Your task to perform on an android device: turn on airplane mode Image 0: 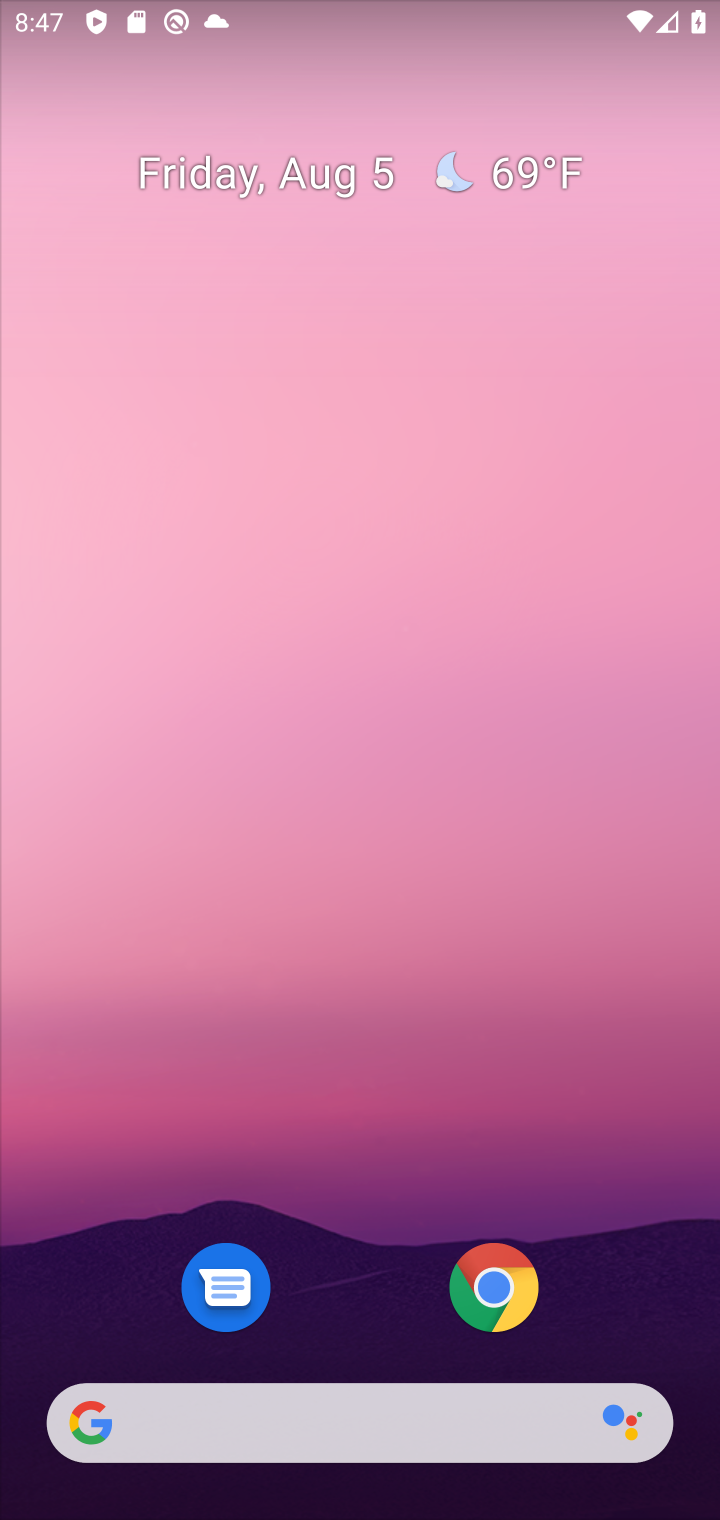
Step 0: drag from (364, 1310) to (334, 9)
Your task to perform on an android device: turn on airplane mode Image 1: 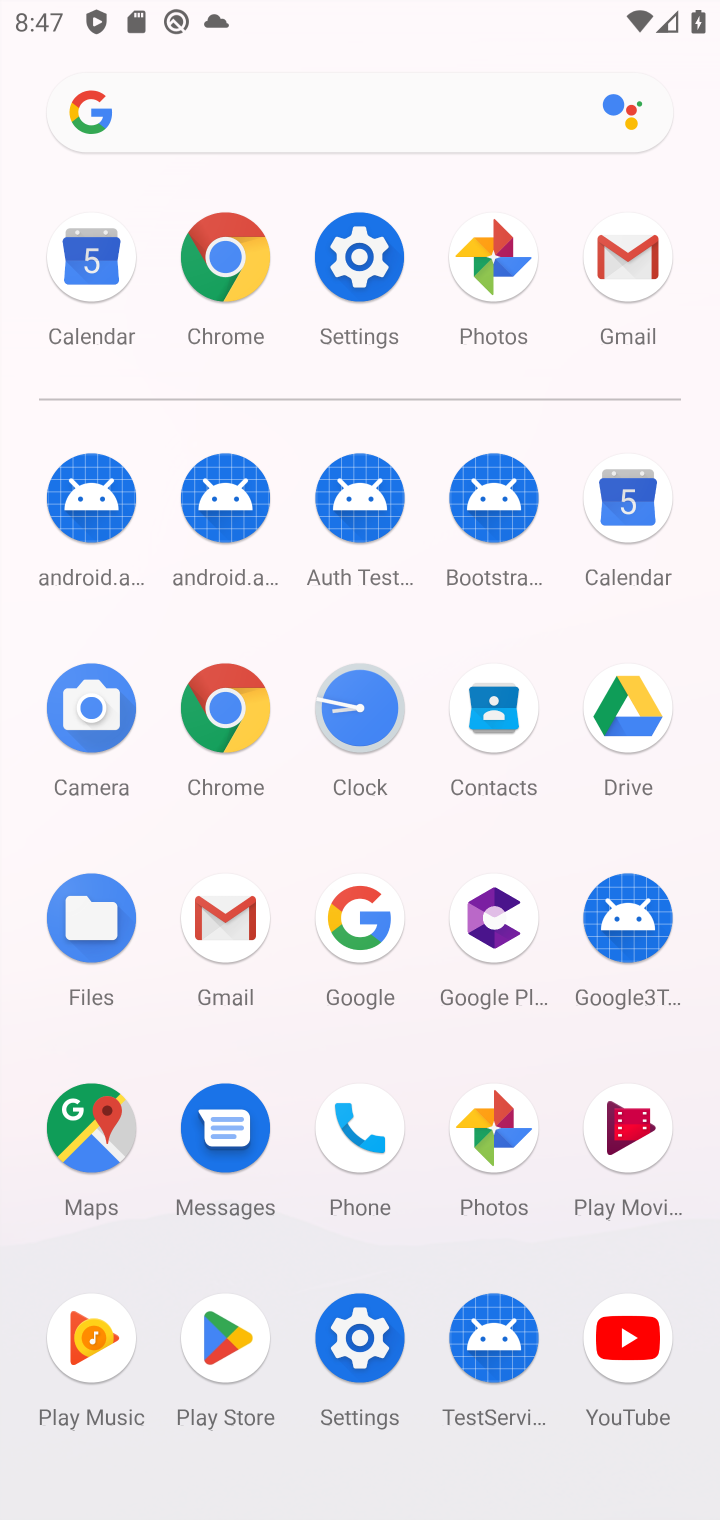
Step 1: click (355, 230)
Your task to perform on an android device: turn on airplane mode Image 2: 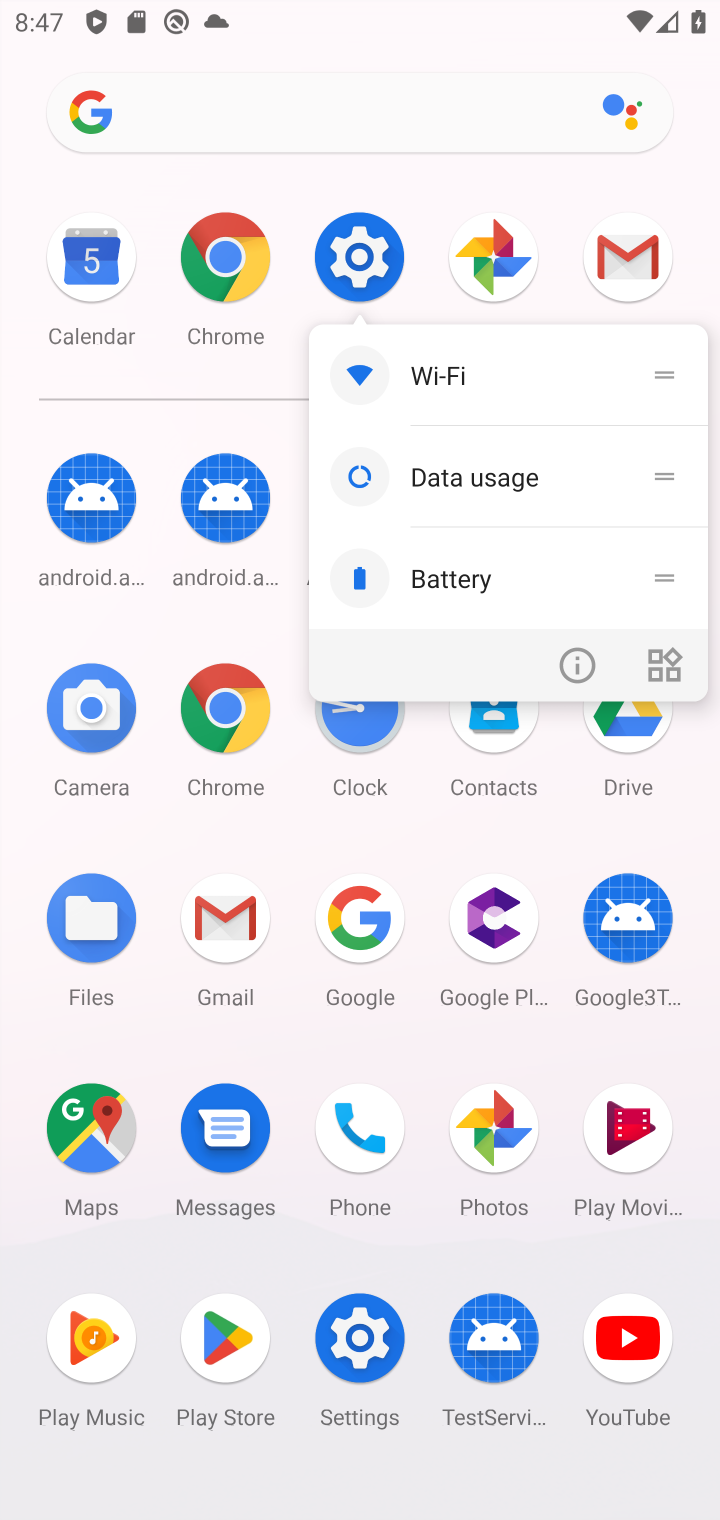
Step 2: click (356, 251)
Your task to perform on an android device: turn on airplane mode Image 3: 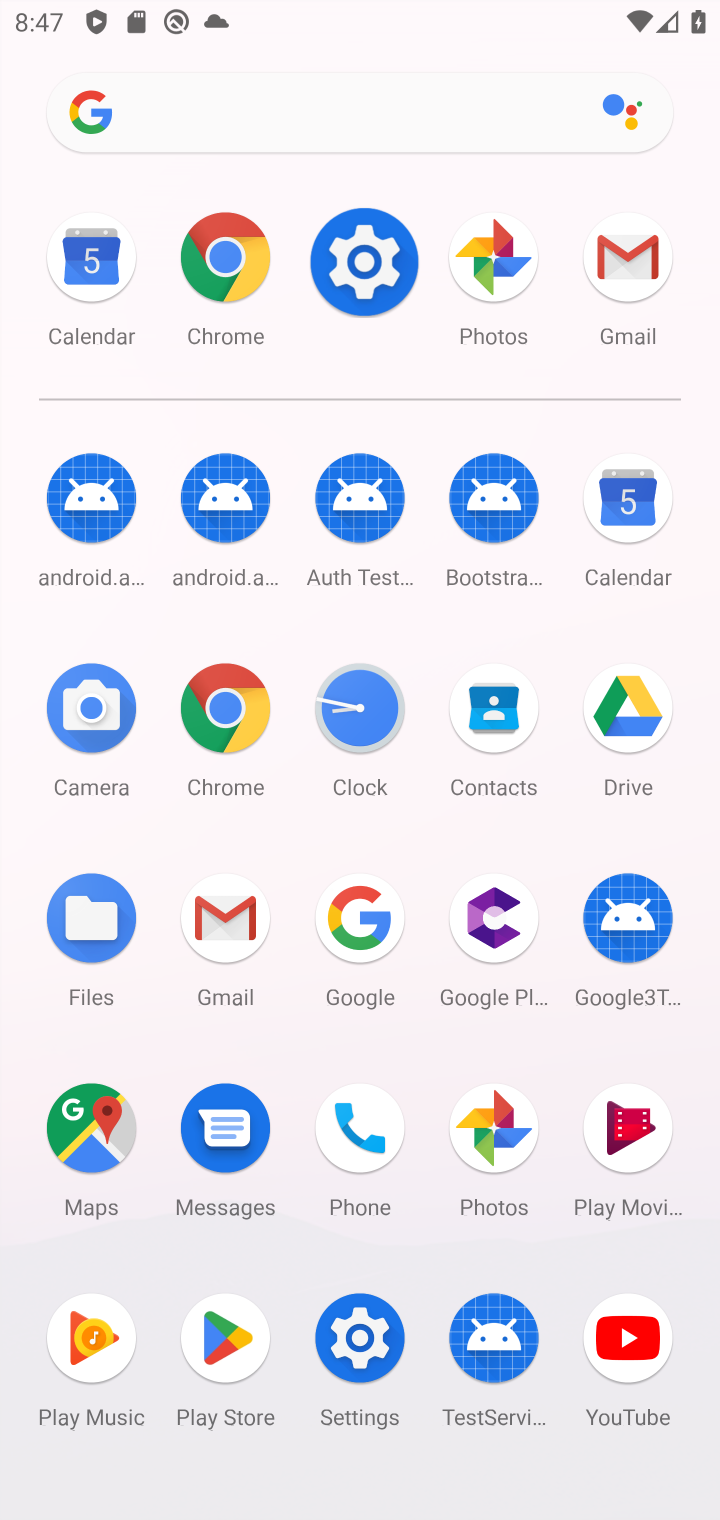
Step 3: click (356, 251)
Your task to perform on an android device: turn on airplane mode Image 4: 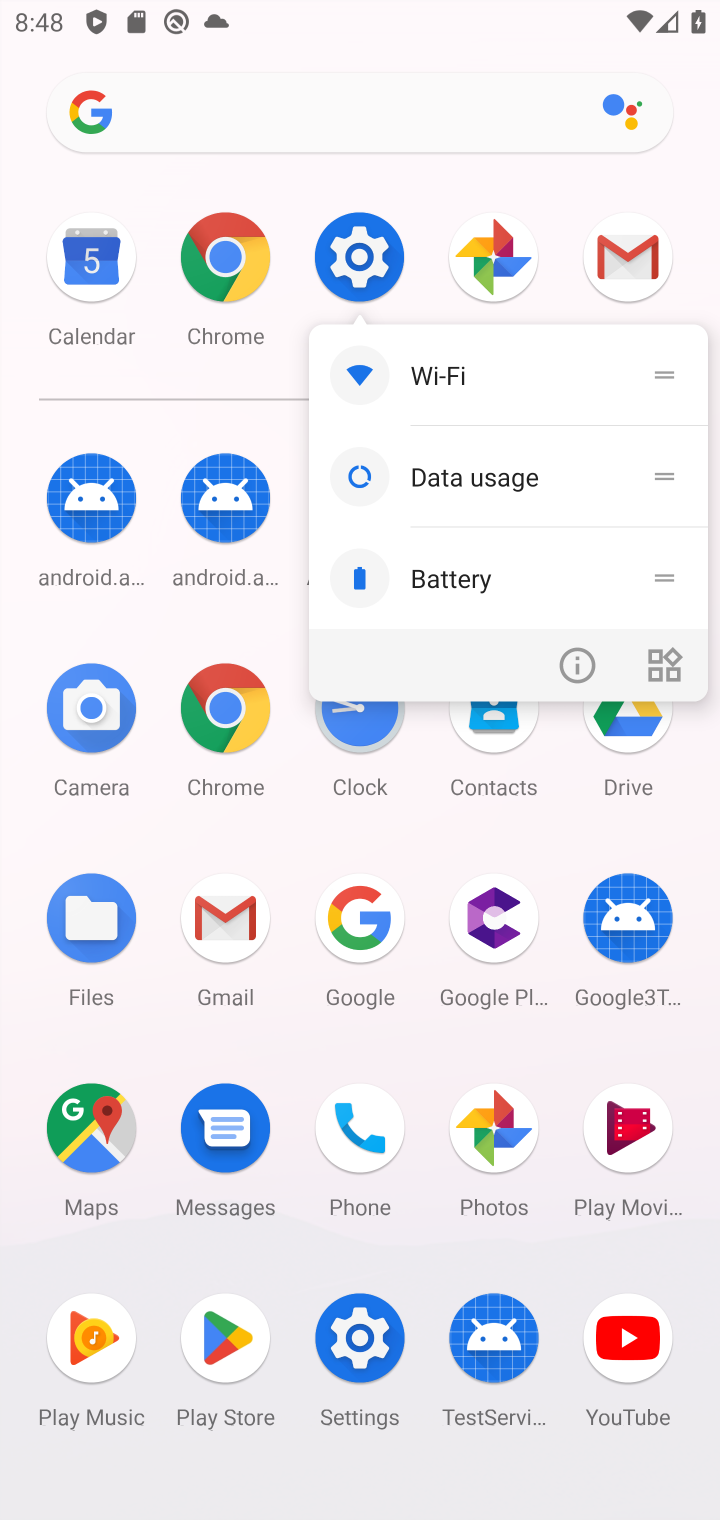
Step 4: click (330, 242)
Your task to perform on an android device: turn on airplane mode Image 5: 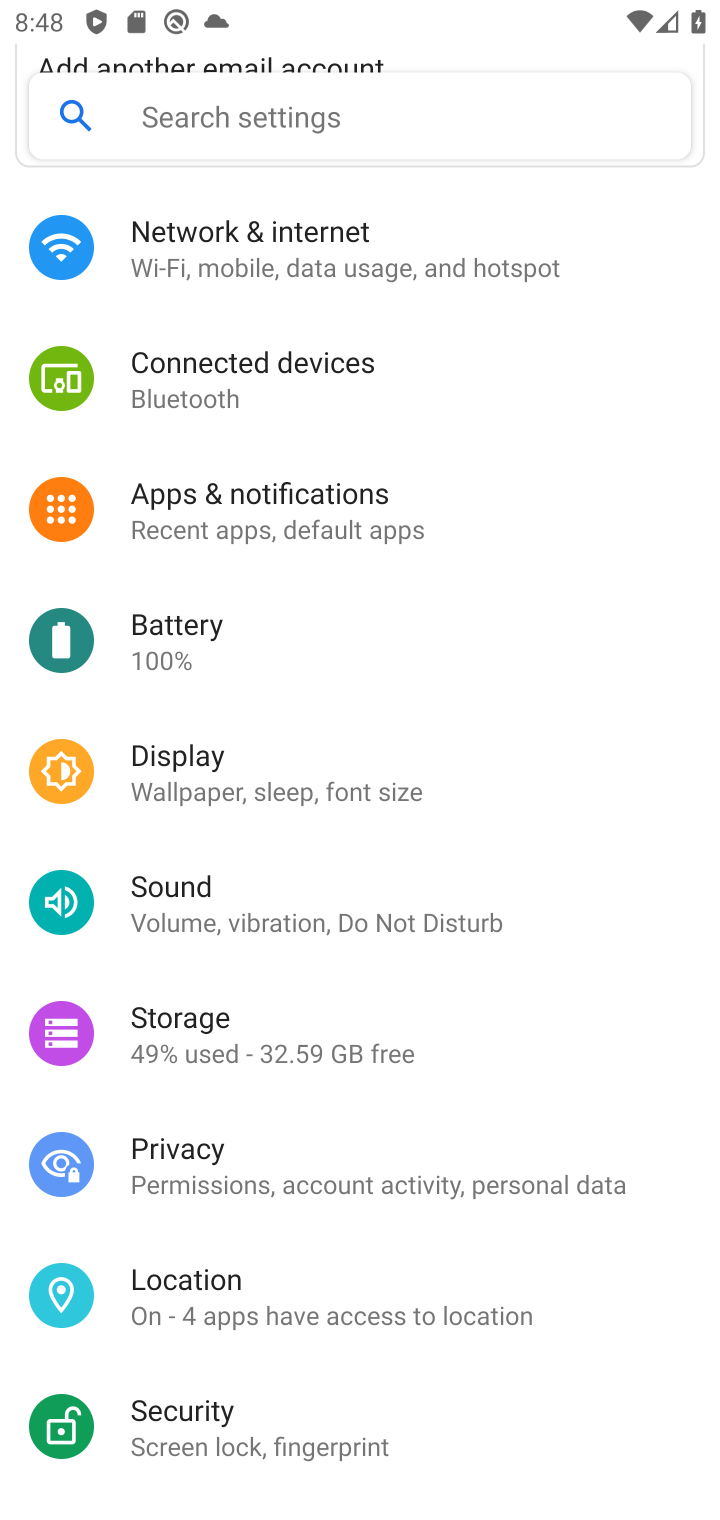
Step 5: drag from (158, 274) to (231, 1135)
Your task to perform on an android device: turn on airplane mode Image 6: 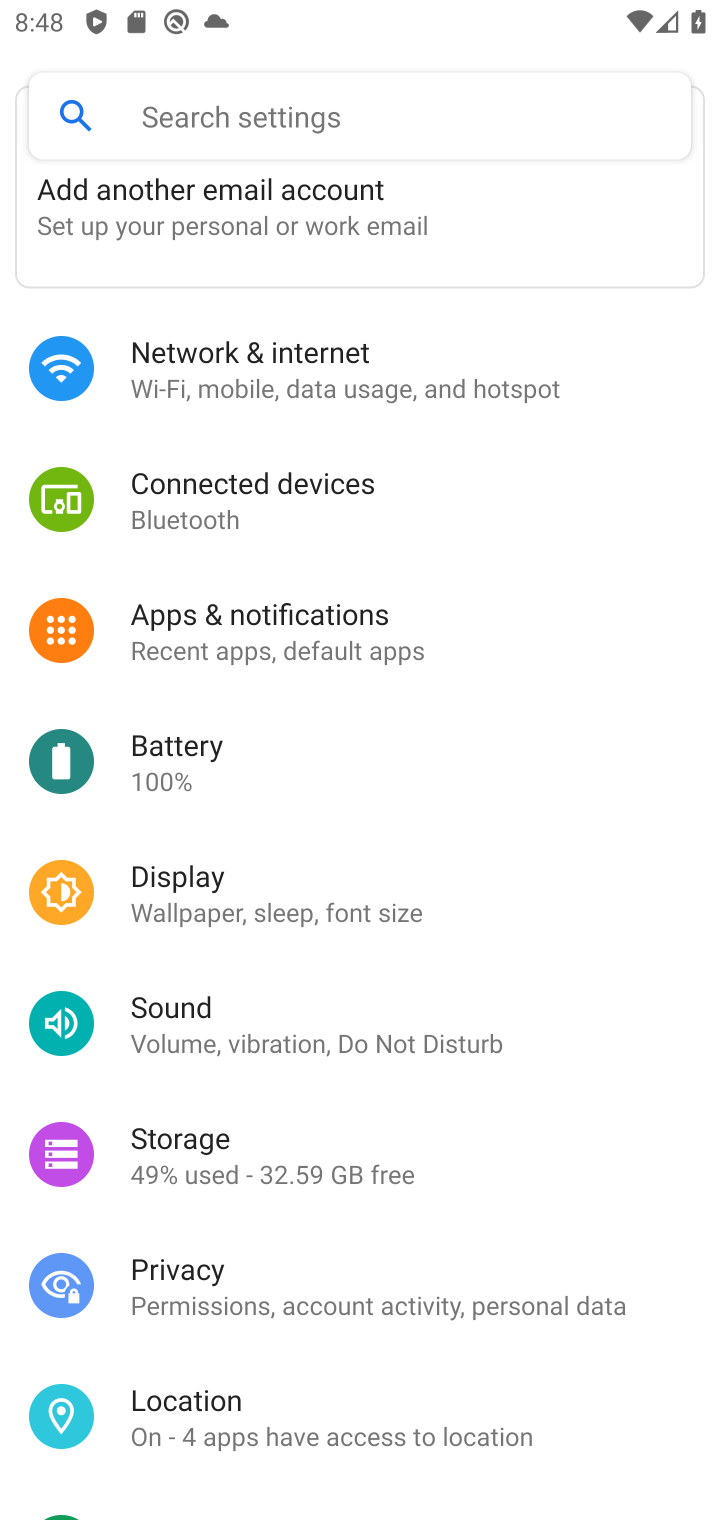
Step 6: click (271, 375)
Your task to perform on an android device: turn on airplane mode Image 7: 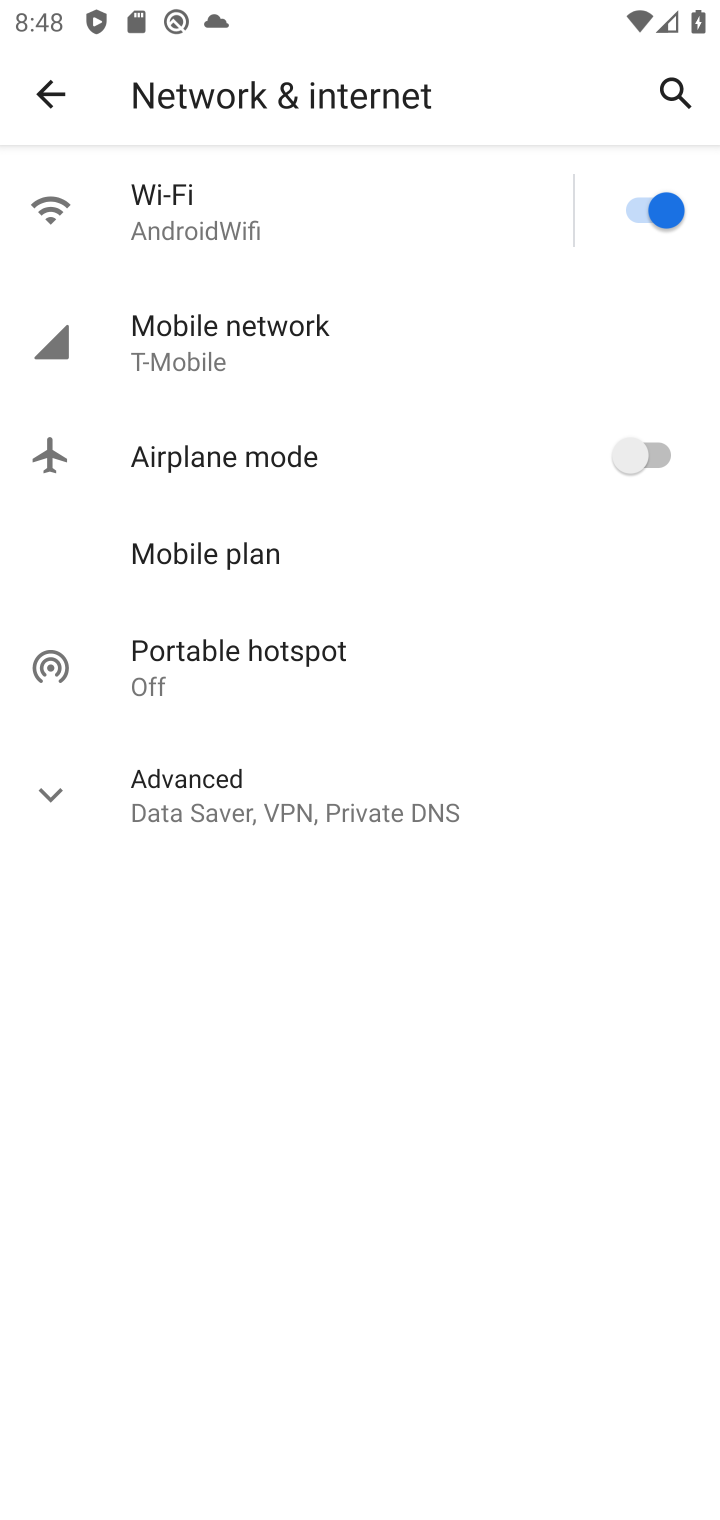
Step 7: click (653, 443)
Your task to perform on an android device: turn on airplane mode Image 8: 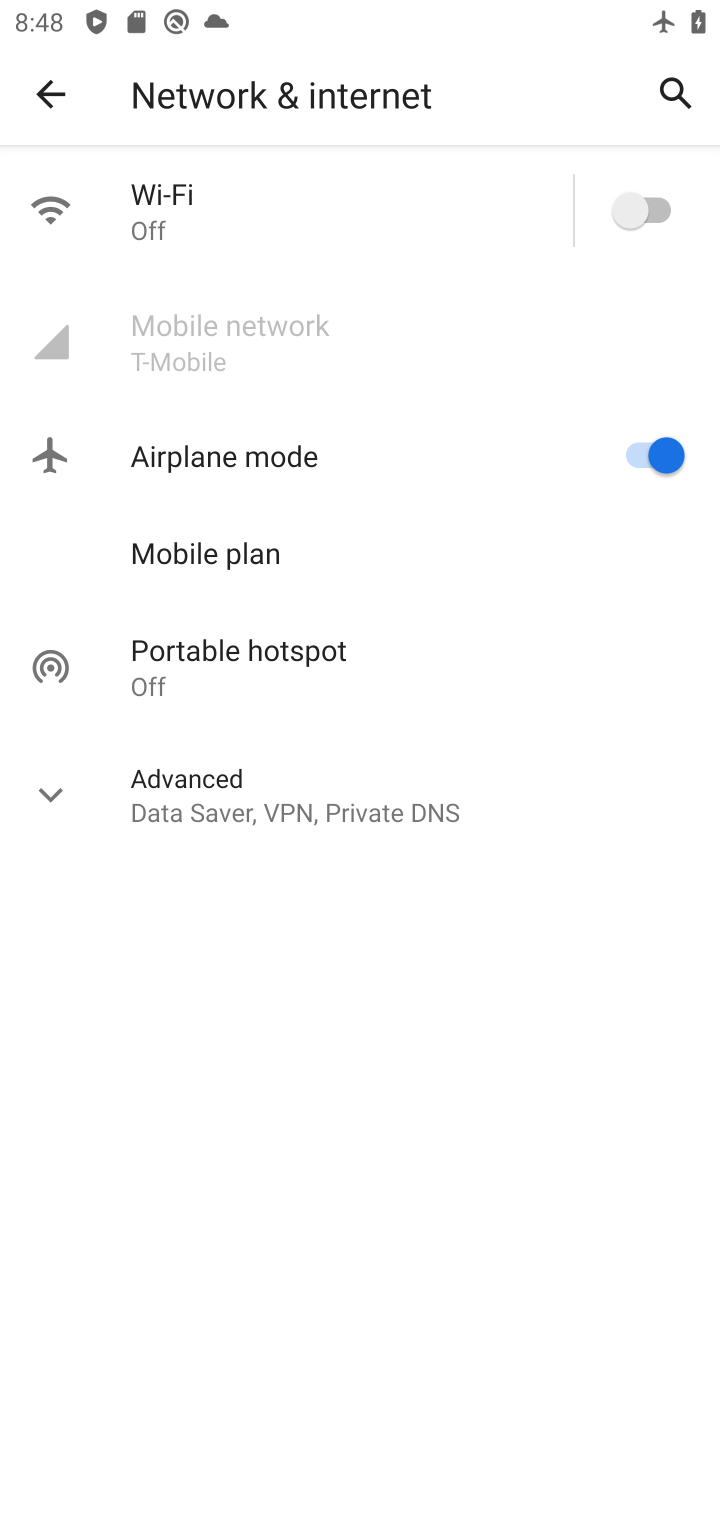
Step 8: task complete